Your task to perform on an android device: empty trash in the gmail app Image 0: 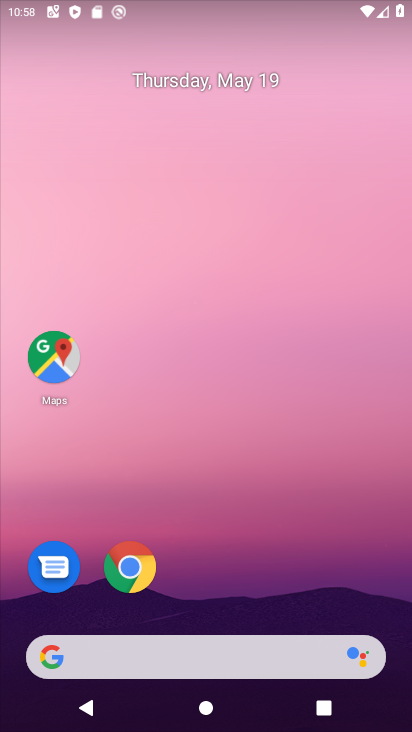
Step 0: drag from (375, 606) to (317, 30)
Your task to perform on an android device: empty trash in the gmail app Image 1: 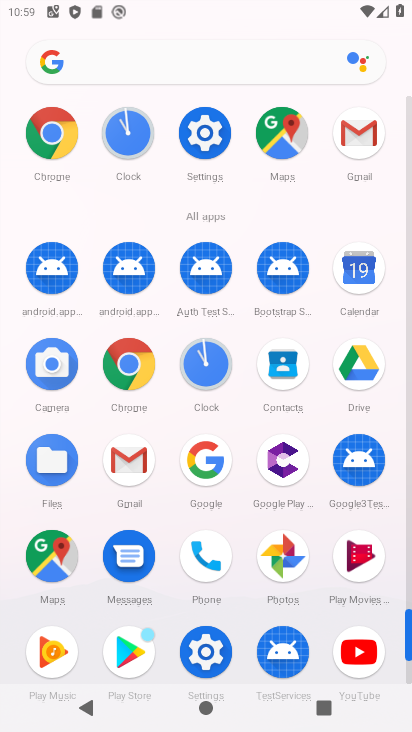
Step 1: click (128, 457)
Your task to perform on an android device: empty trash in the gmail app Image 2: 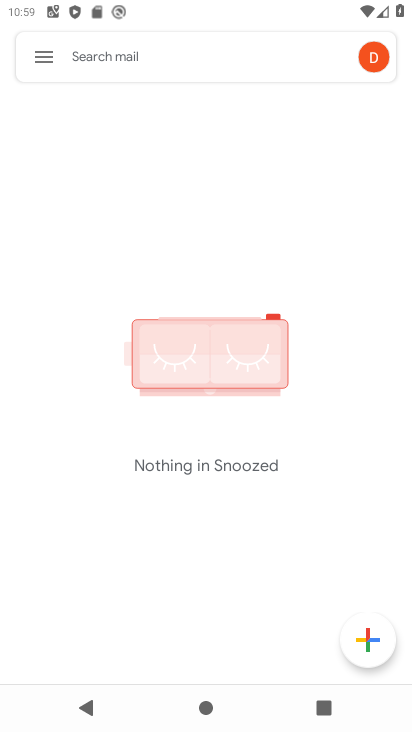
Step 2: click (35, 58)
Your task to perform on an android device: empty trash in the gmail app Image 3: 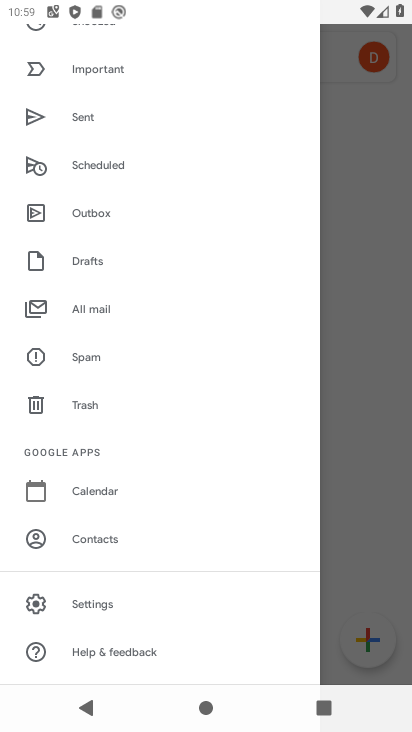
Step 3: drag from (160, 570) to (172, 240)
Your task to perform on an android device: empty trash in the gmail app Image 4: 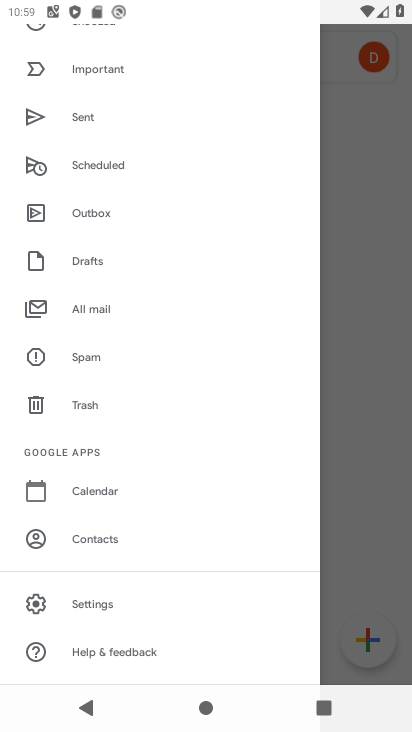
Step 4: click (90, 412)
Your task to perform on an android device: empty trash in the gmail app Image 5: 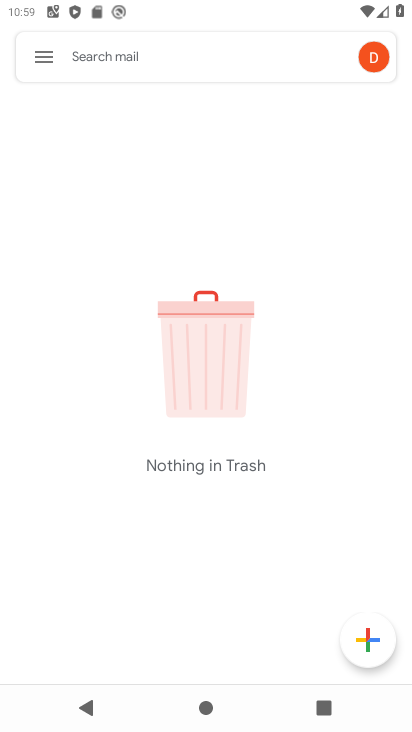
Step 5: task complete